Your task to perform on an android device: turn off notifications in google photos Image 0: 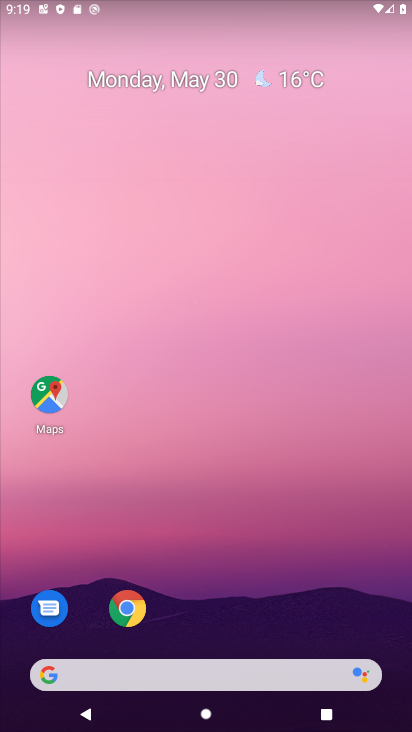
Step 0: drag from (368, 628) to (358, 184)
Your task to perform on an android device: turn off notifications in google photos Image 1: 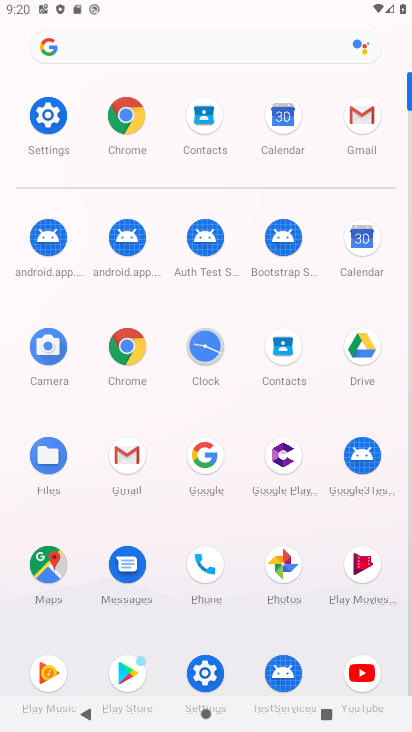
Step 1: click (298, 557)
Your task to perform on an android device: turn off notifications in google photos Image 2: 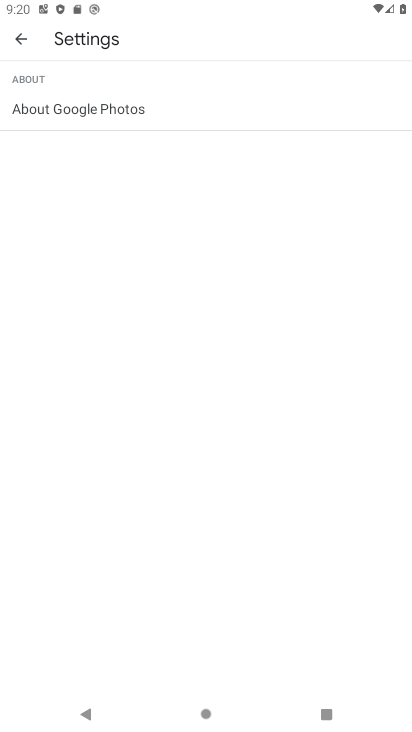
Step 2: click (15, 34)
Your task to perform on an android device: turn off notifications in google photos Image 3: 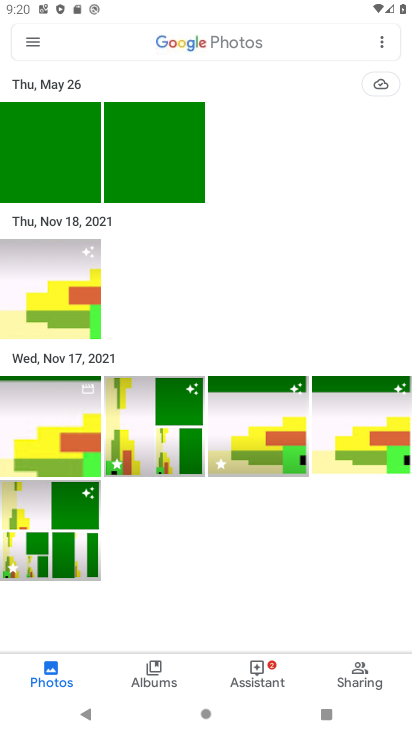
Step 3: click (36, 42)
Your task to perform on an android device: turn off notifications in google photos Image 4: 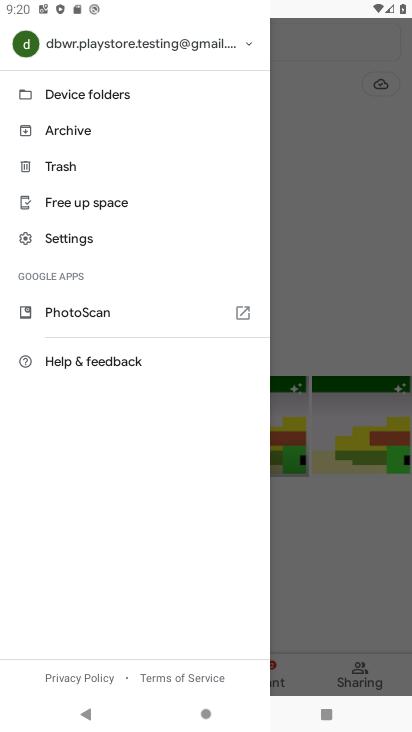
Step 4: click (68, 246)
Your task to perform on an android device: turn off notifications in google photos Image 5: 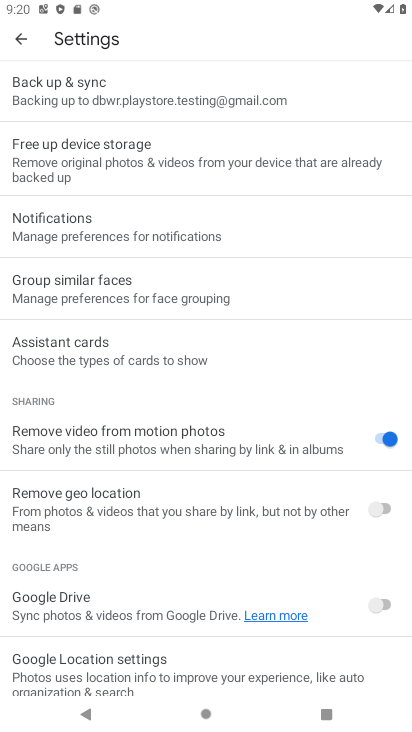
Step 5: click (70, 230)
Your task to perform on an android device: turn off notifications in google photos Image 6: 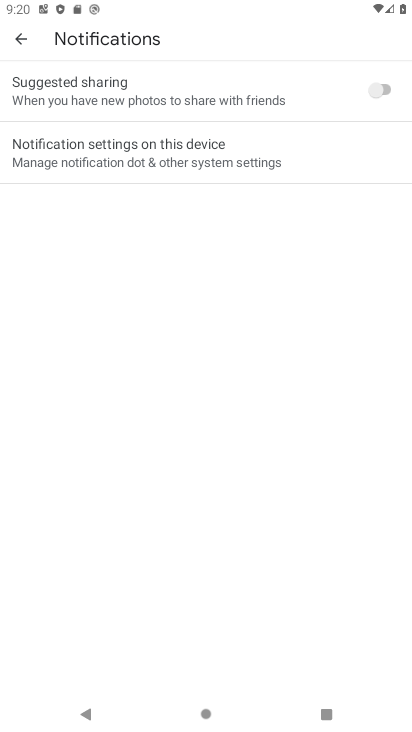
Step 6: task complete